Your task to perform on an android device: Open Amazon Image 0: 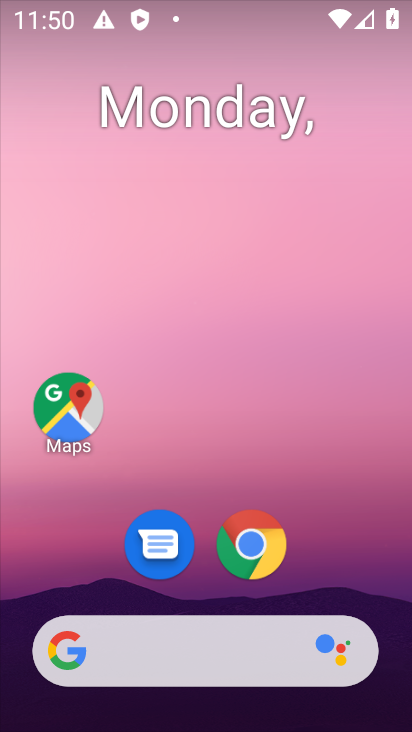
Step 0: click (252, 548)
Your task to perform on an android device: Open Amazon Image 1: 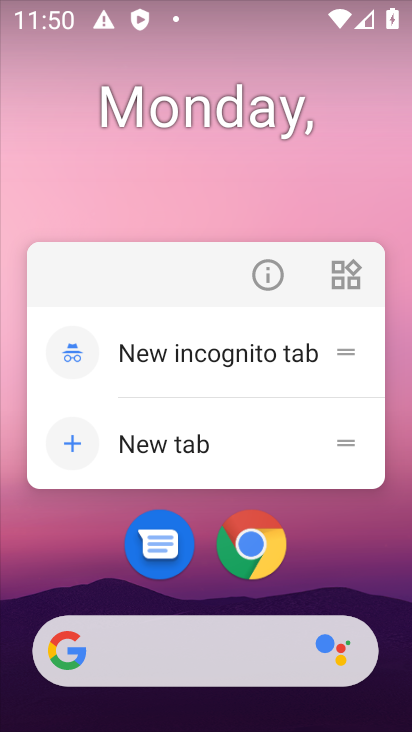
Step 1: click (254, 546)
Your task to perform on an android device: Open Amazon Image 2: 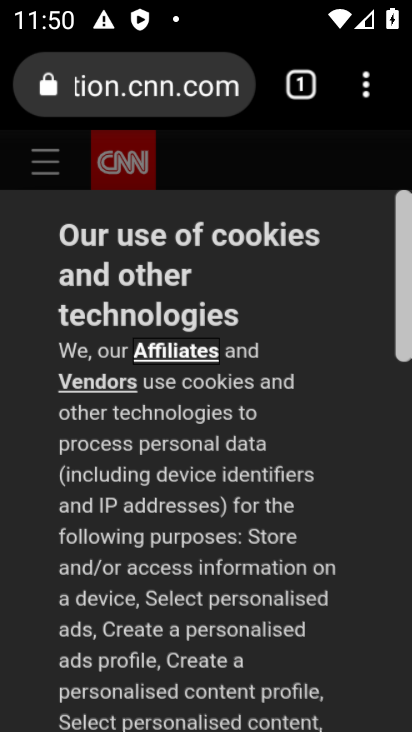
Step 2: click (137, 71)
Your task to perform on an android device: Open Amazon Image 3: 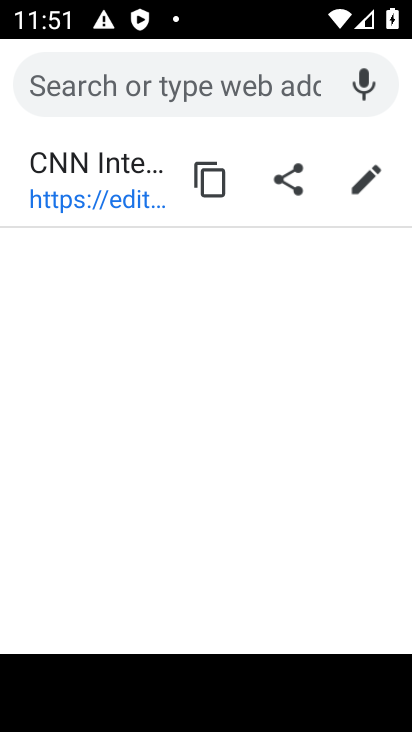
Step 3: type "amazon"
Your task to perform on an android device: Open Amazon Image 4: 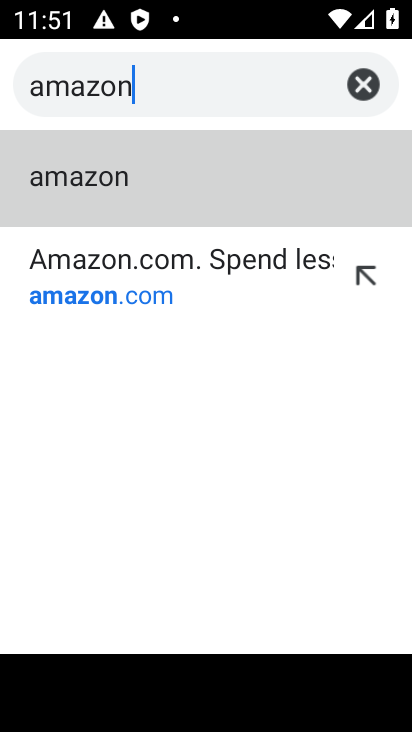
Step 4: click (98, 309)
Your task to perform on an android device: Open Amazon Image 5: 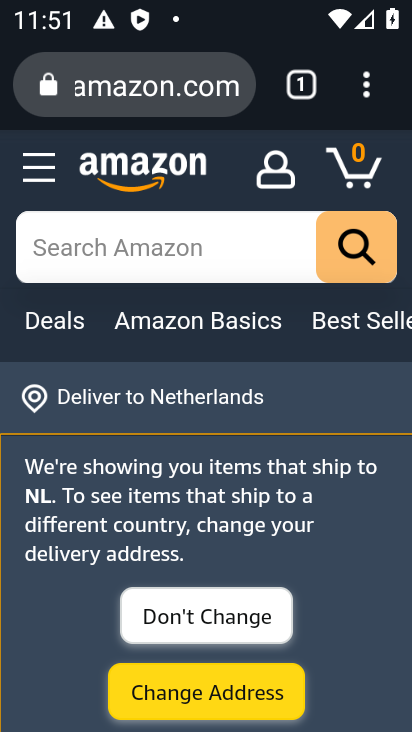
Step 5: task complete